Your task to perform on an android device: turn on improve location accuracy Image 0: 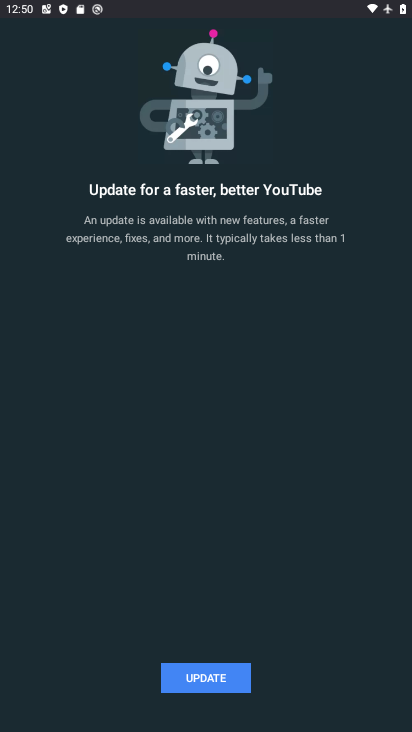
Step 0: press home button
Your task to perform on an android device: turn on improve location accuracy Image 1: 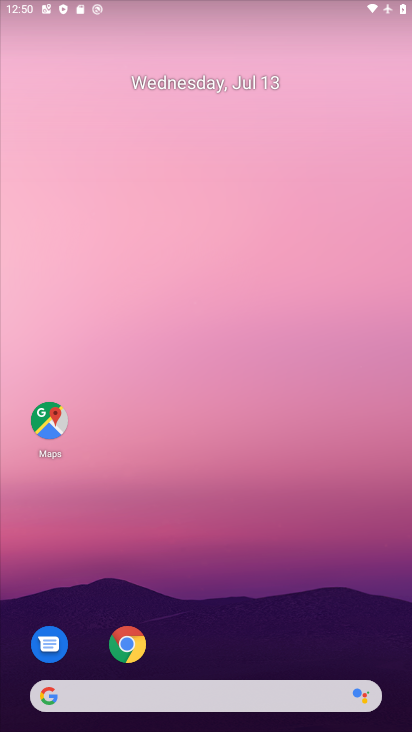
Step 1: drag from (234, 614) to (189, 56)
Your task to perform on an android device: turn on improve location accuracy Image 2: 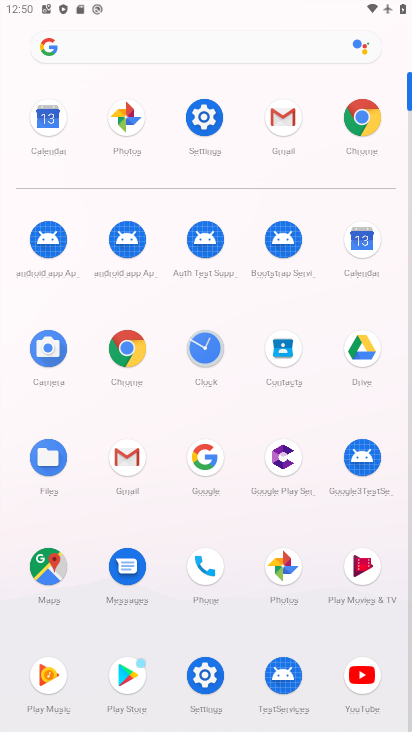
Step 2: click (218, 113)
Your task to perform on an android device: turn on improve location accuracy Image 3: 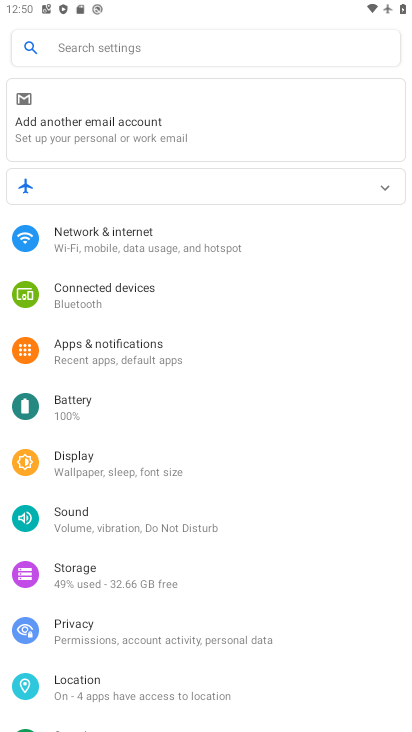
Step 3: click (105, 685)
Your task to perform on an android device: turn on improve location accuracy Image 4: 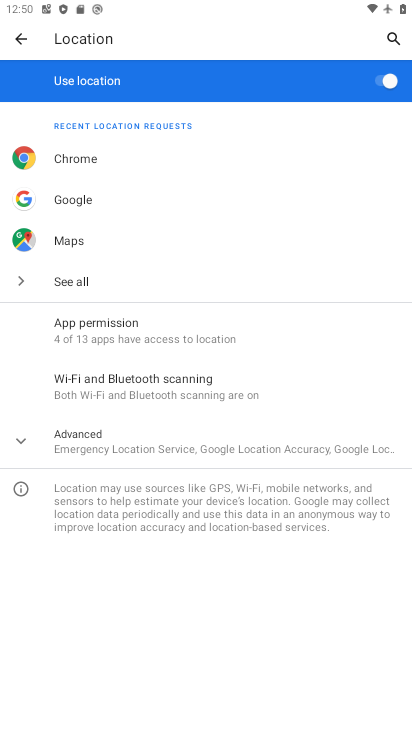
Step 4: click (116, 447)
Your task to perform on an android device: turn on improve location accuracy Image 5: 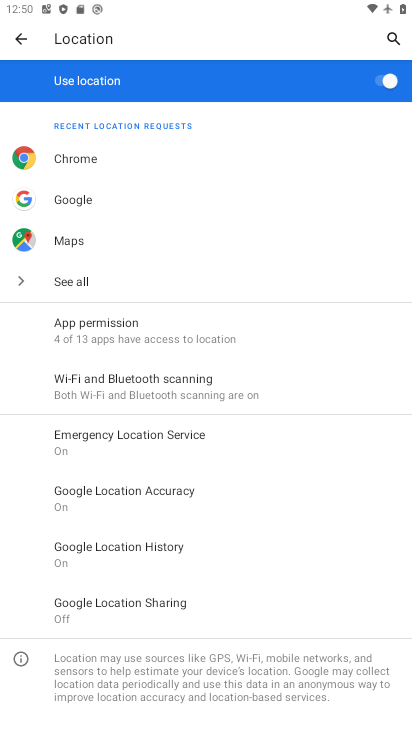
Step 5: click (160, 483)
Your task to perform on an android device: turn on improve location accuracy Image 6: 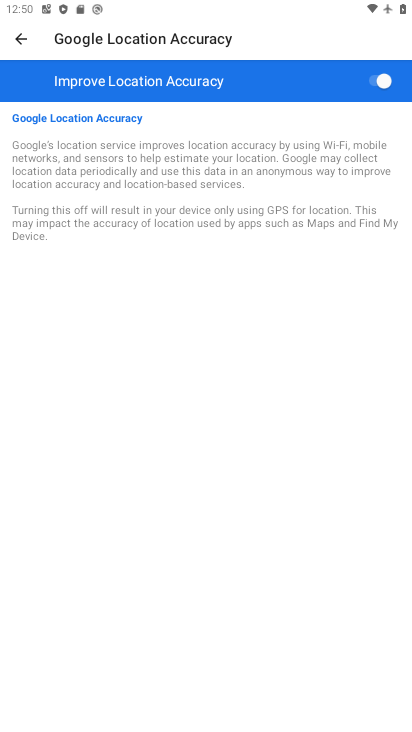
Step 6: task complete